Your task to perform on an android device: open sync settings in chrome Image 0: 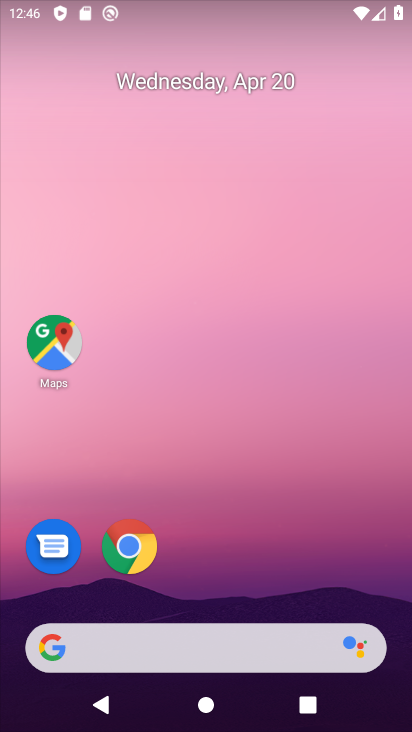
Step 0: click (128, 546)
Your task to perform on an android device: open sync settings in chrome Image 1: 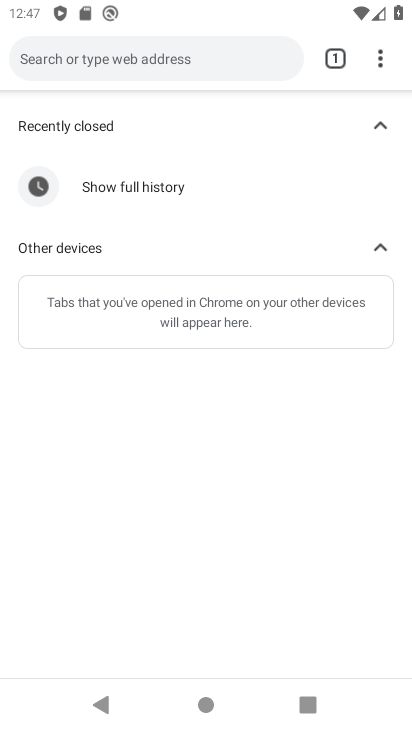
Step 1: click (378, 56)
Your task to perform on an android device: open sync settings in chrome Image 2: 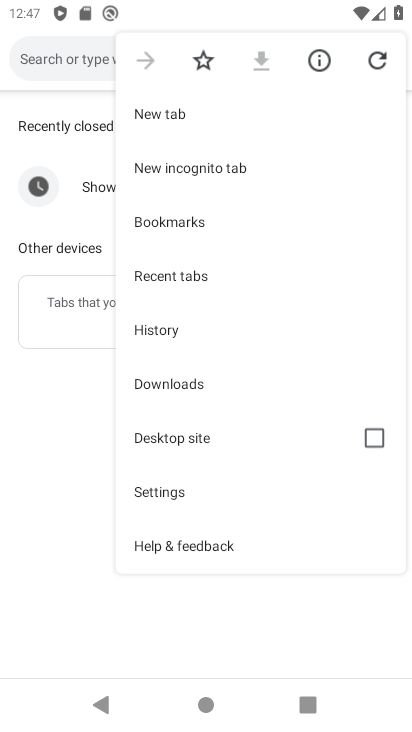
Step 2: click (162, 492)
Your task to perform on an android device: open sync settings in chrome Image 3: 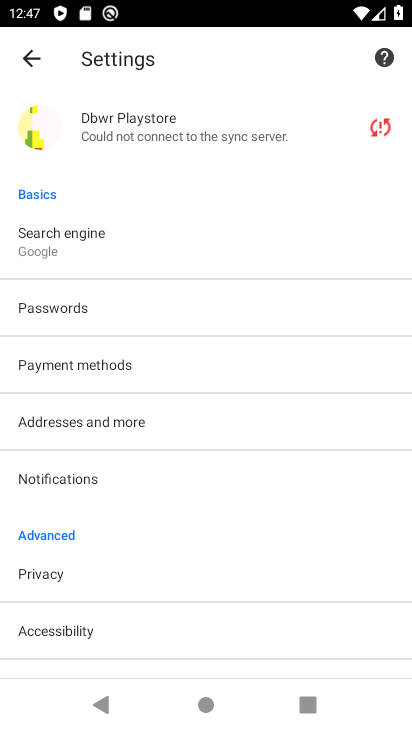
Step 3: drag from (160, 626) to (159, 313)
Your task to perform on an android device: open sync settings in chrome Image 4: 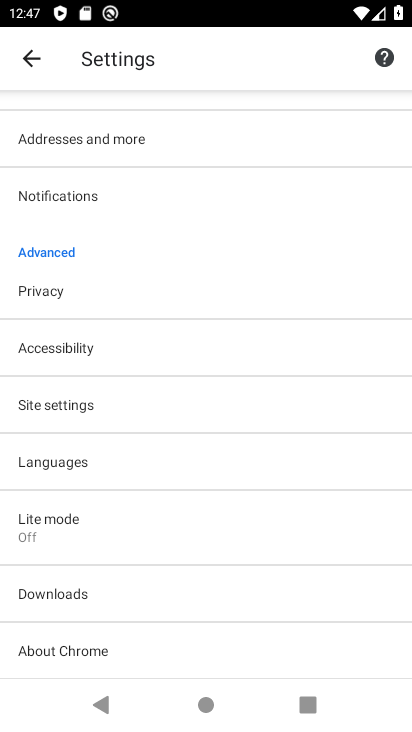
Step 4: click (62, 410)
Your task to perform on an android device: open sync settings in chrome Image 5: 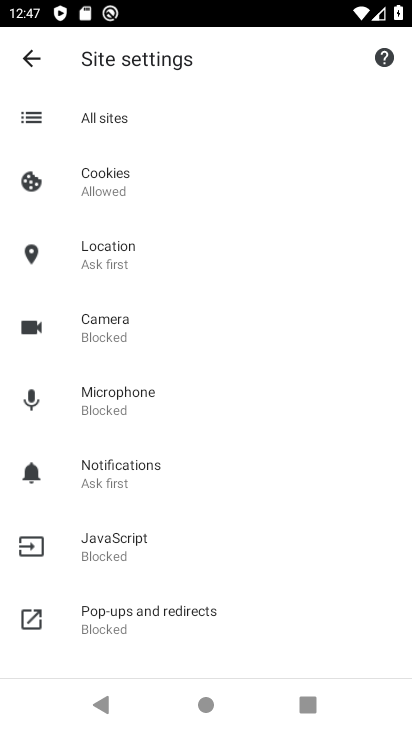
Step 5: drag from (128, 621) to (129, 286)
Your task to perform on an android device: open sync settings in chrome Image 6: 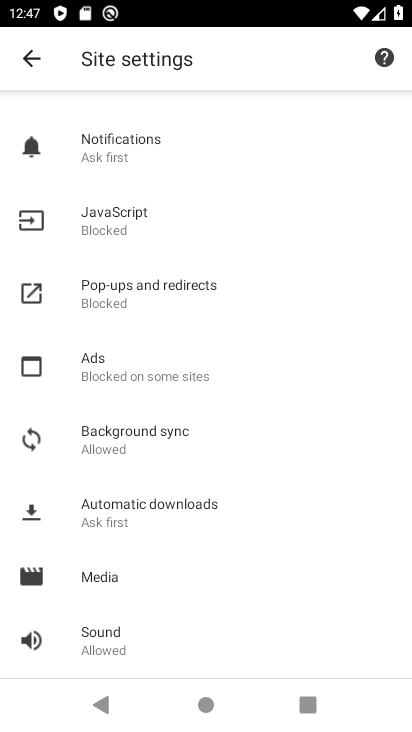
Step 6: click (111, 431)
Your task to perform on an android device: open sync settings in chrome Image 7: 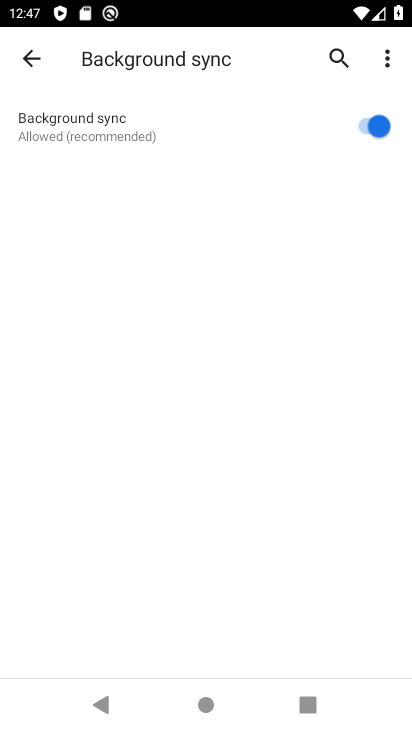
Step 7: task complete